Your task to perform on an android device: turn on airplane mode Image 0: 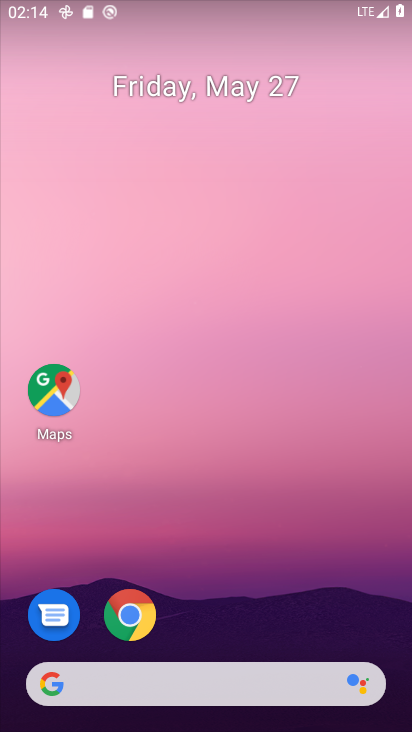
Step 0: drag from (367, 623) to (375, 143)
Your task to perform on an android device: turn on airplane mode Image 1: 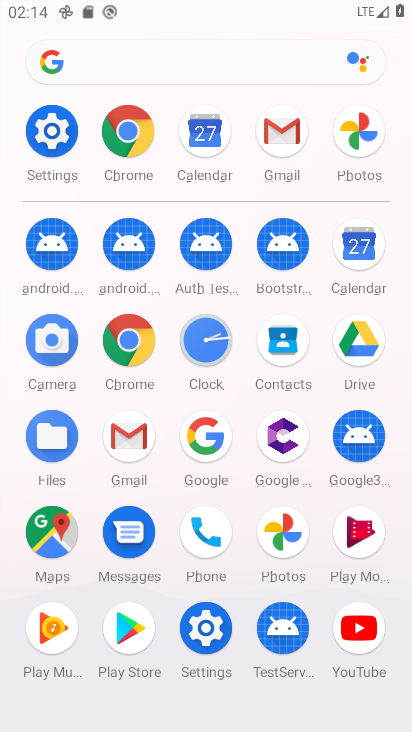
Step 1: click (46, 137)
Your task to perform on an android device: turn on airplane mode Image 2: 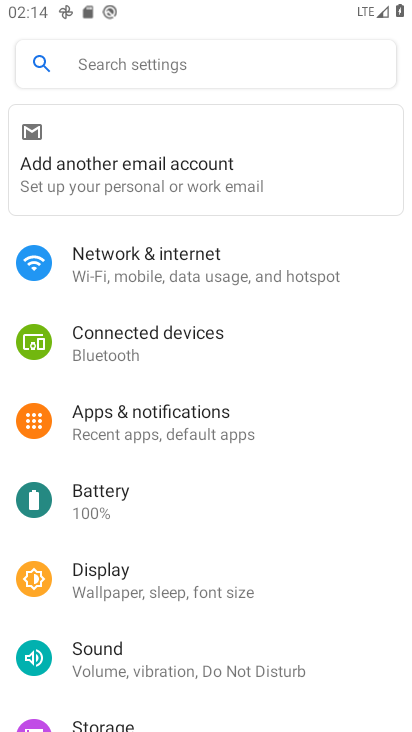
Step 2: drag from (329, 530) to (328, 443)
Your task to perform on an android device: turn on airplane mode Image 3: 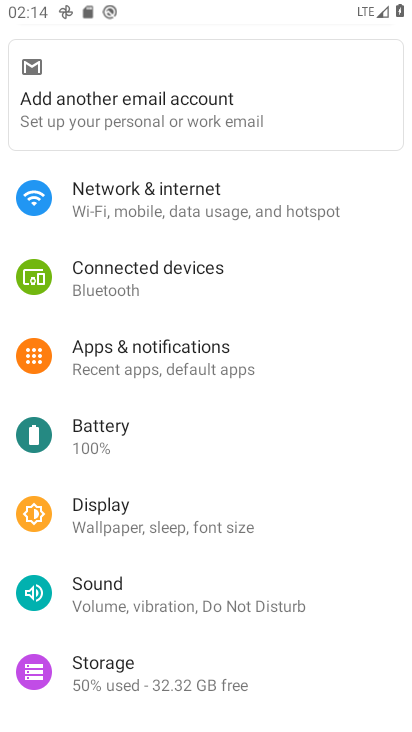
Step 3: drag from (322, 545) to (322, 441)
Your task to perform on an android device: turn on airplane mode Image 4: 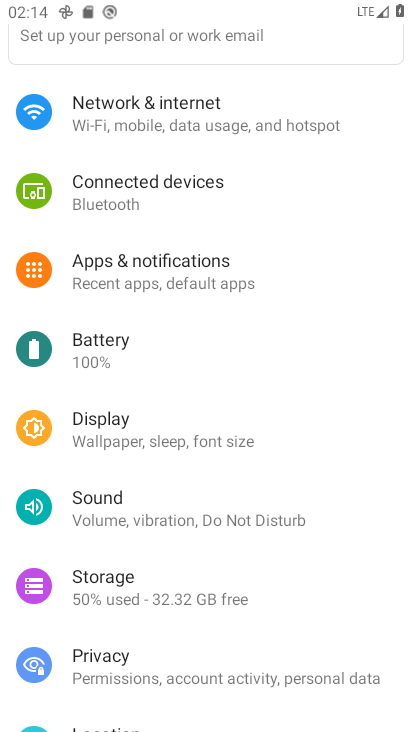
Step 4: drag from (322, 550) to (328, 465)
Your task to perform on an android device: turn on airplane mode Image 5: 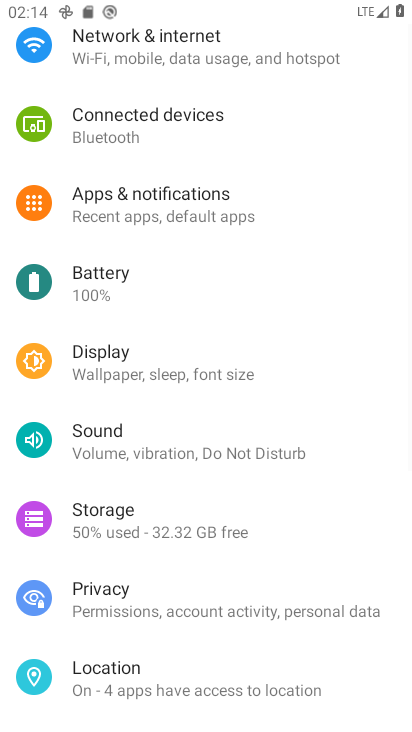
Step 5: drag from (325, 560) to (331, 496)
Your task to perform on an android device: turn on airplane mode Image 6: 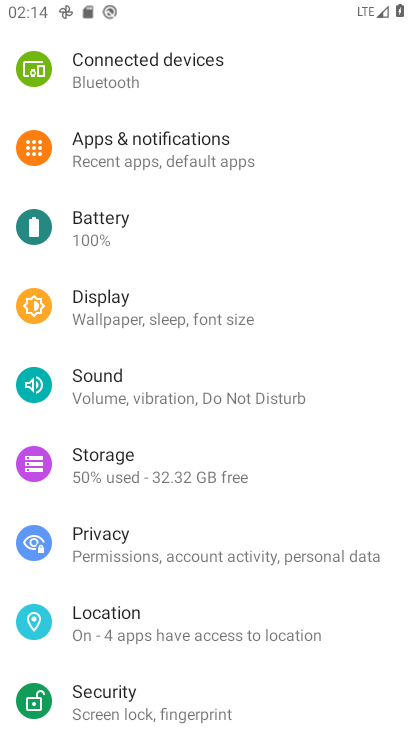
Step 6: drag from (325, 599) to (325, 529)
Your task to perform on an android device: turn on airplane mode Image 7: 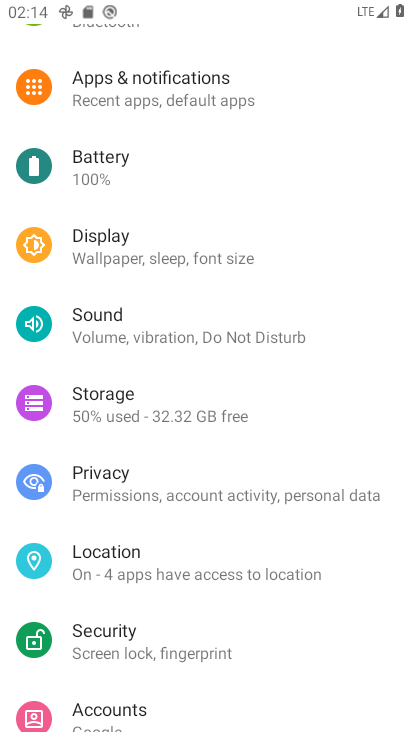
Step 7: drag from (320, 624) to (325, 543)
Your task to perform on an android device: turn on airplane mode Image 8: 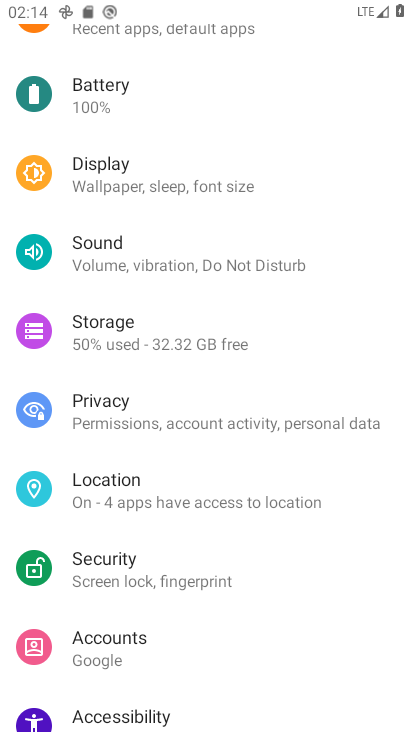
Step 8: drag from (322, 624) to (330, 555)
Your task to perform on an android device: turn on airplane mode Image 9: 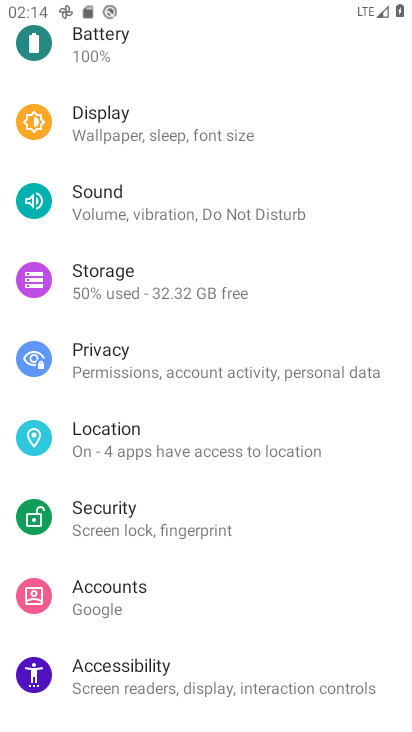
Step 9: drag from (321, 630) to (329, 539)
Your task to perform on an android device: turn on airplane mode Image 10: 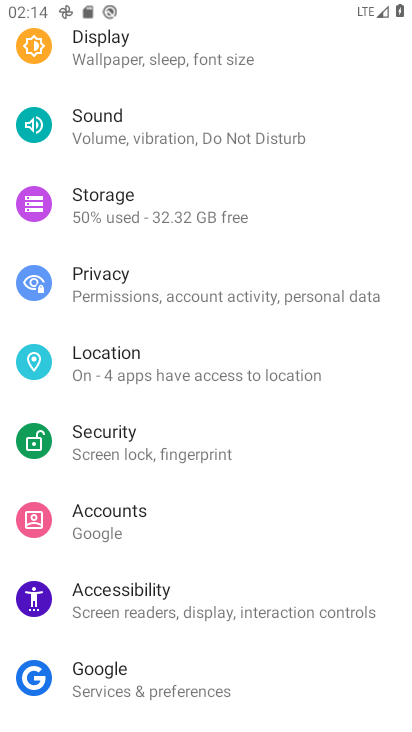
Step 10: drag from (327, 640) to (333, 552)
Your task to perform on an android device: turn on airplane mode Image 11: 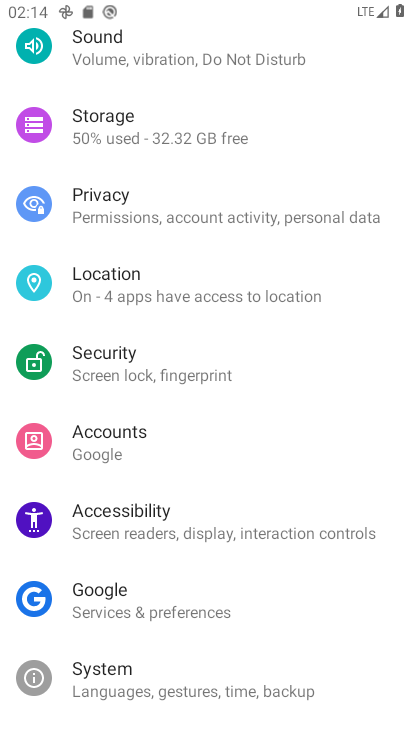
Step 11: drag from (328, 467) to (328, 551)
Your task to perform on an android device: turn on airplane mode Image 12: 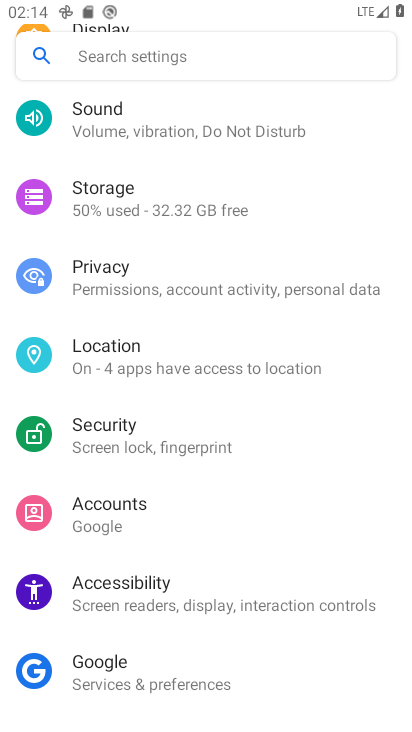
Step 12: drag from (328, 475) to (328, 560)
Your task to perform on an android device: turn on airplane mode Image 13: 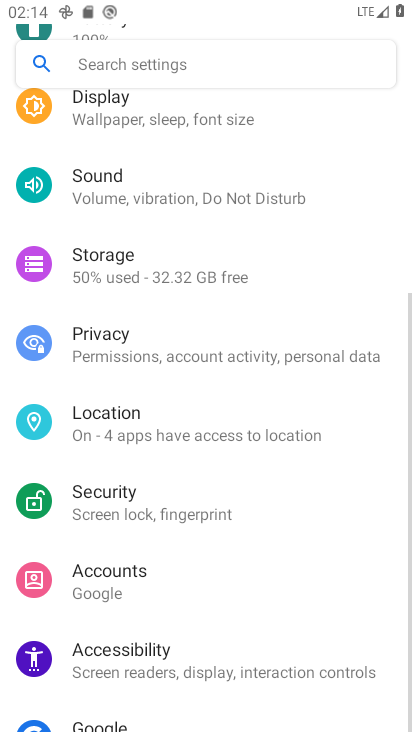
Step 13: drag from (328, 459) to (327, 540)
Your task to perform on an android device: turn on airplane mode Image 14: 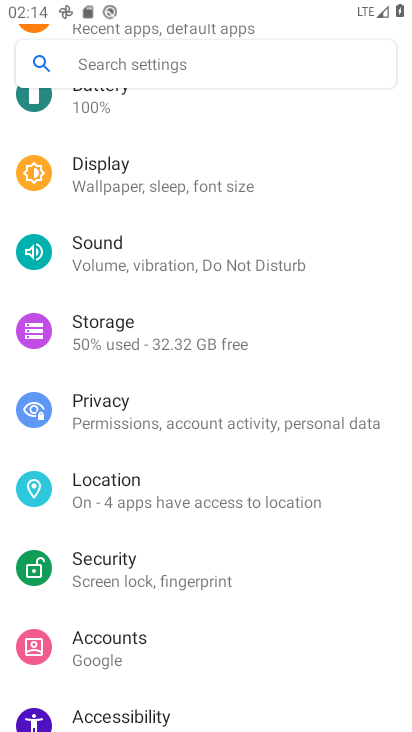
Step 14: drag from (327, 477) to (327, 531)
Your task to perform on an android device: turn on airplane mode Image 15: 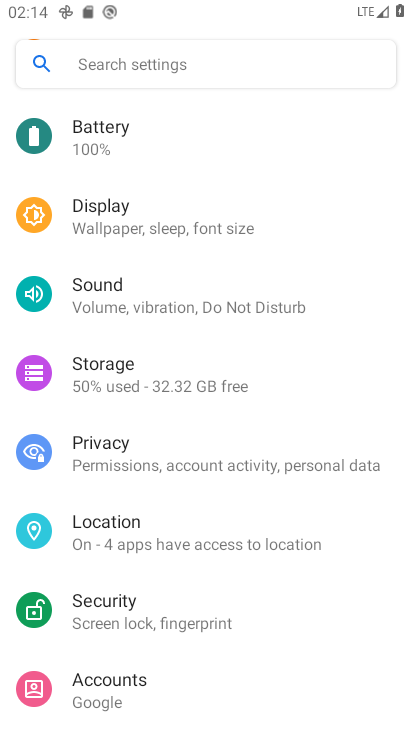
Step 15: drag from (333, 447) to (333, 526)
Your task to perform on an android device: turn on airplane mode Image 16: 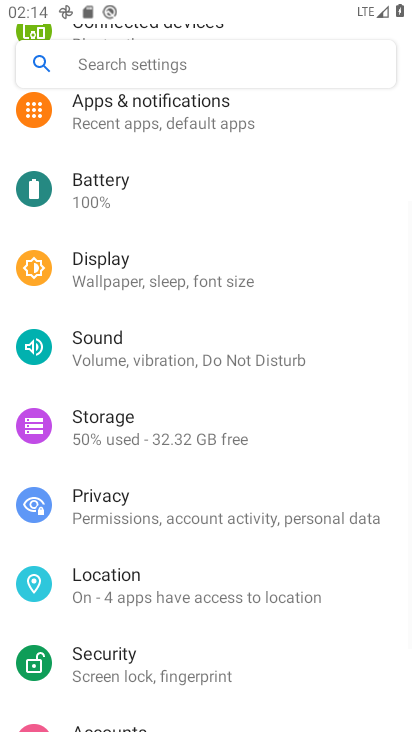
Step 16: drag from (333, 391) to (335, 508)
Your task to perform on an android device: turn on airplane mode Image 17: 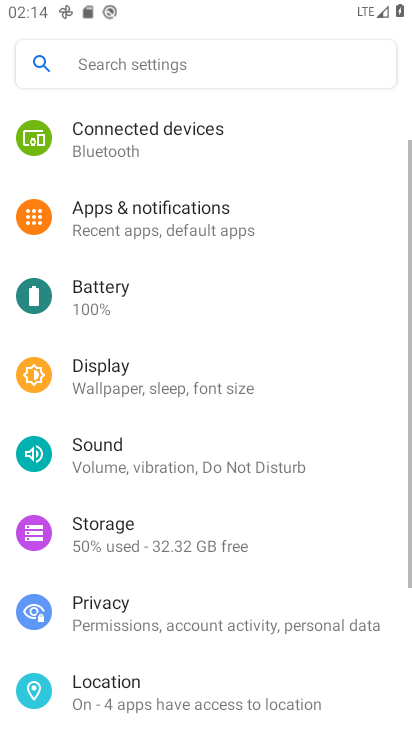
Step 17: drag from (335, 386) to (335, 490)
Your task to perform on an android device: turn on airplane mode Image 18: 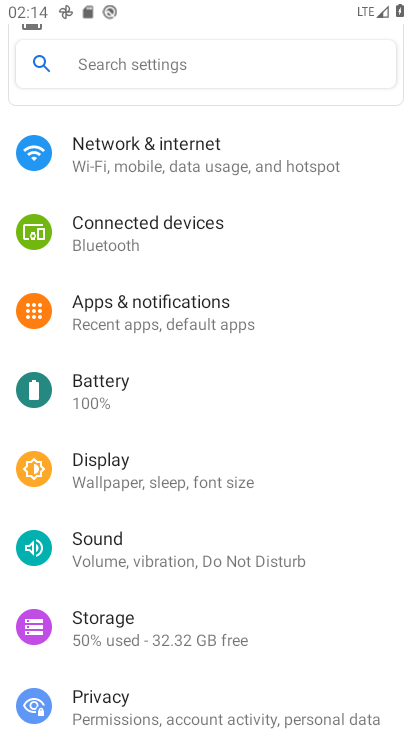
Step 18: drag from (344, 316) to (344, 416)
Your task to perform on an android device: turn on airplane mode Image 19: 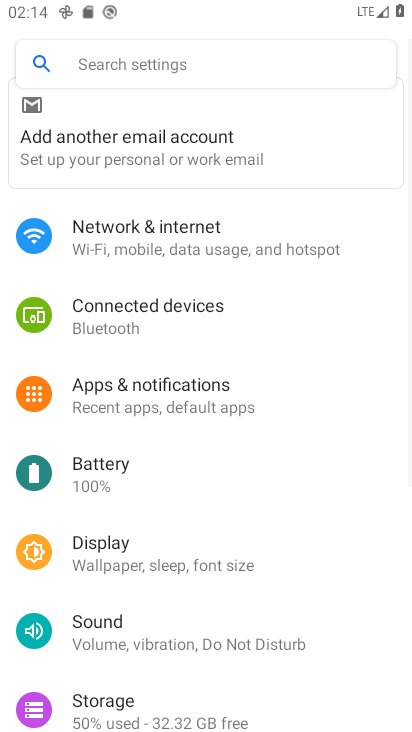
Step 19: drag from (341, 289) to (338, 407)
Your task to perform on an android device: turn on airplane mode Image 20: 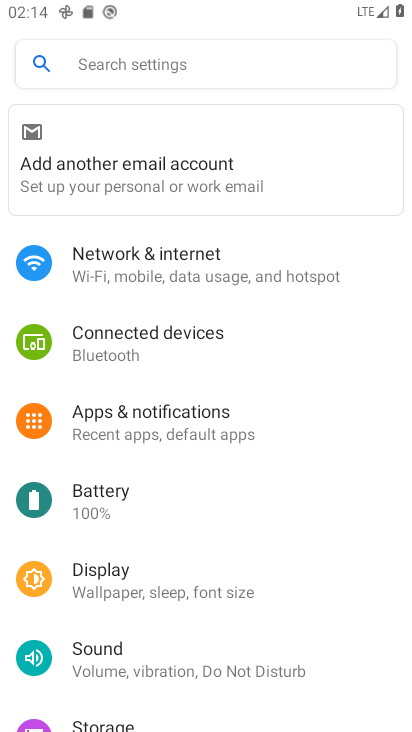
Step 20: click (287, 287)
Your task to perform on an android device: turn on airplane mode Image 21: 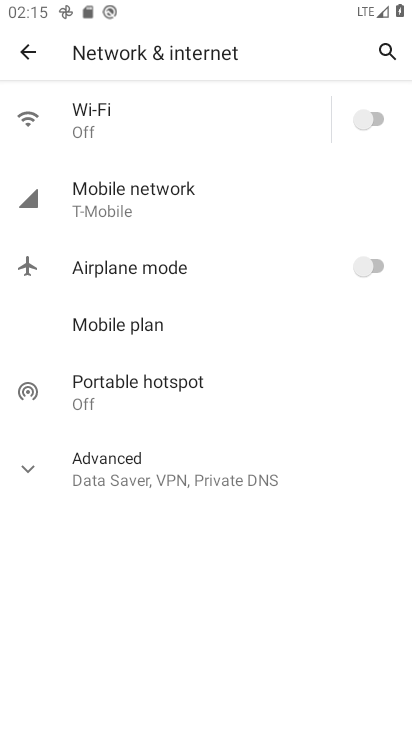
Step 21: click (356, 281)
Your task to perform on an android device: turn on airplane mode Image 22: 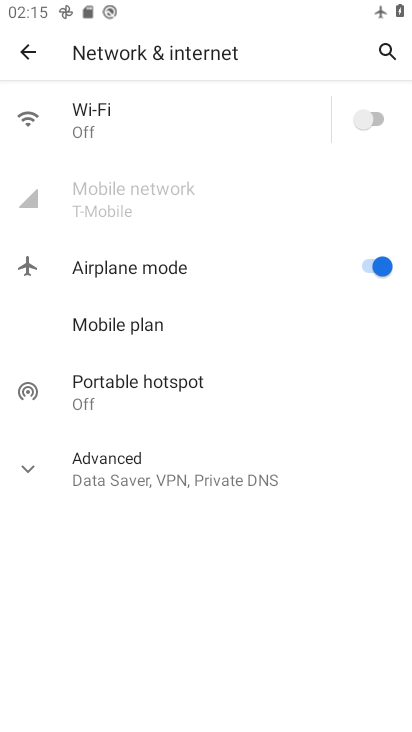
Step 22: task complete